Your task to perform on an android device: Go to Yahoo.com Image 0: 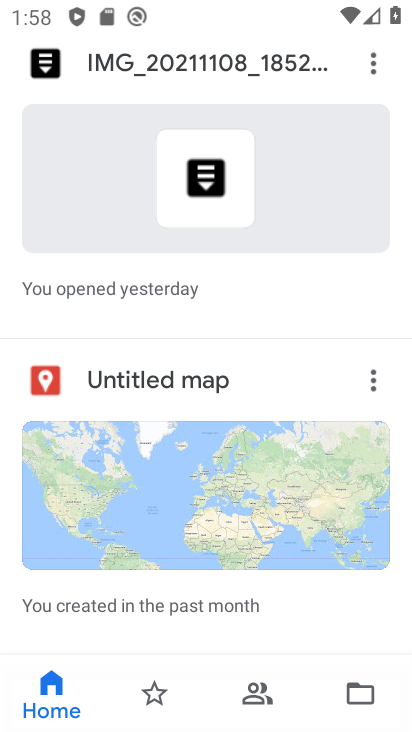
Step 0: press home button
Your task to perform on an android device: Go to Yahoo.com Image 1: 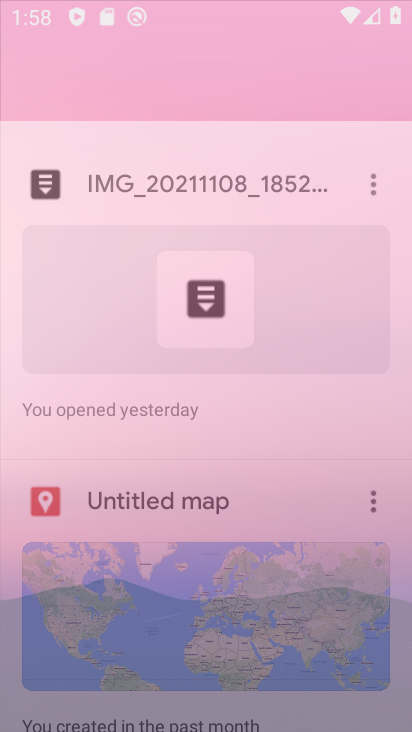
Step 1: drag from (175, 581) to (188, 0)
Your task to perform on an android device: Go to Yahoo.com Image 2: 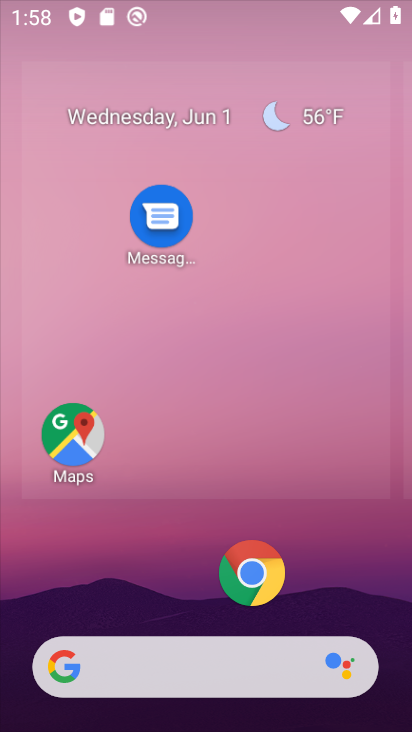
Step 2: drag from (199, 586) to (270, 107)
Your task to perform on an android device: Go to Yahoo.com Image 3: 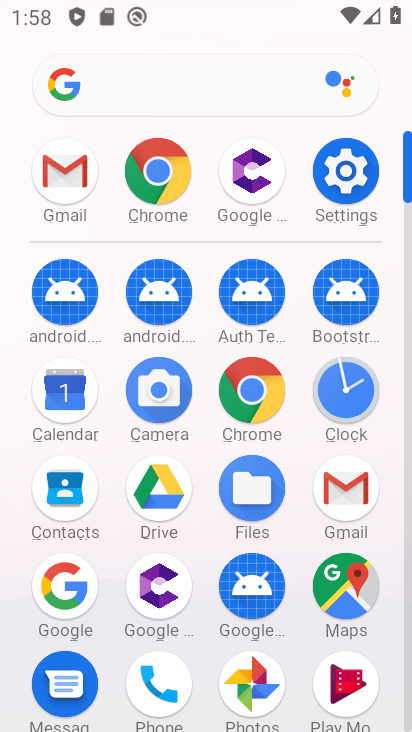
Step 3: click (199, 87)
Your task to perform on an android device: Go to Yahoo.com Image 4: 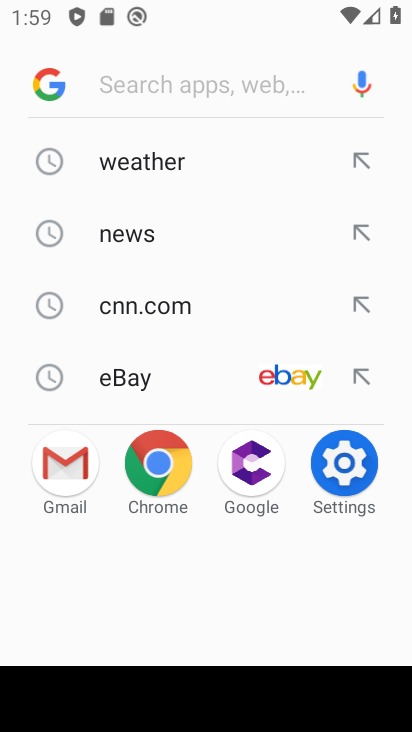
Step 4: type "Yahoo.com"
Your task to perform on an android device: Go to Yahoo.com Image 5: 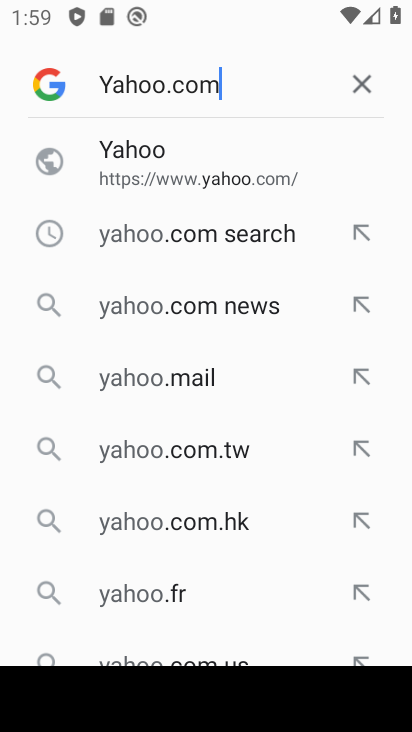
Step 5: type ""
Your task to perform on an android device: Go to Yahoo.com Image 6: 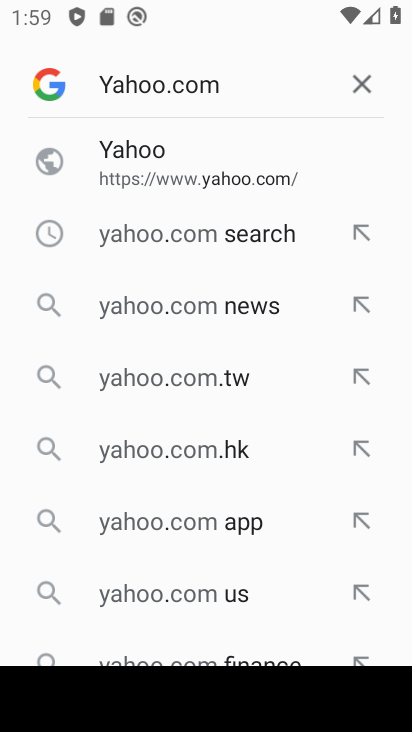
Step 6: click (167, 157)
Your task to perform on an android device: Go to Yahoo.com Image 7: 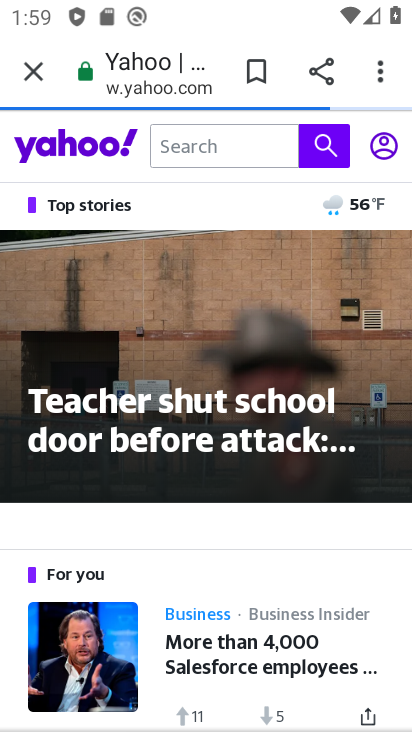
Step 7: task complete